Your task to perform on an android device: Open Yahoo.com Image 0: 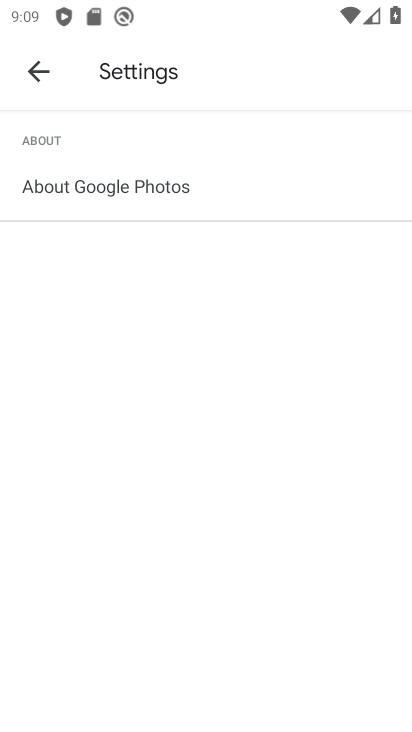
Step 0: press home button
Your task to perform on an android device: Open Yahoo.com Image 1: 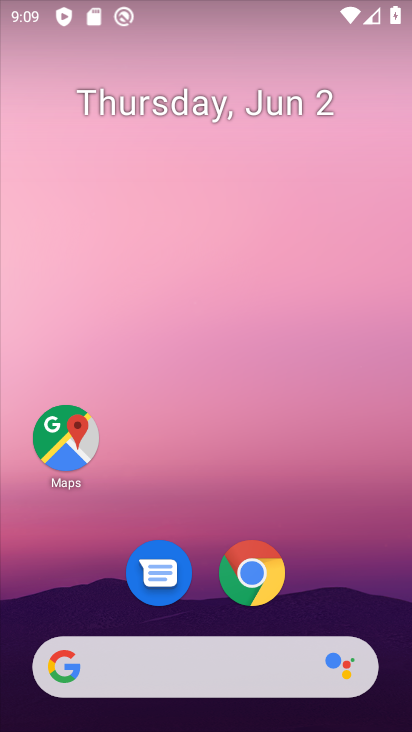
Step 1: click (252, 578)
Your task to perform on an android device: Open Yahoo.com Image 2: 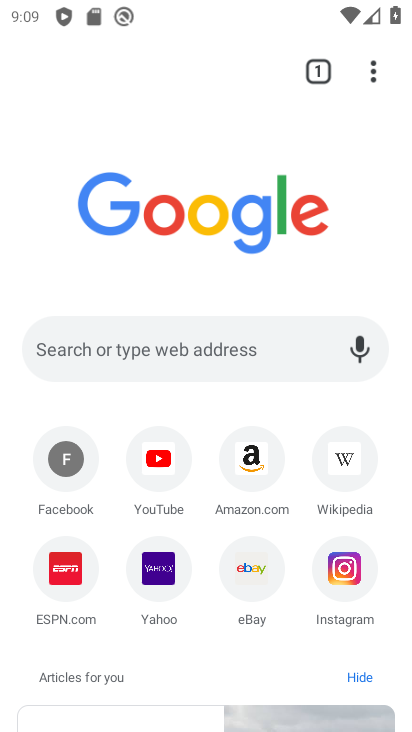
Step 2: click (167, 571)
Your task to perform on an android device: Open Yahoo.com Image 3: 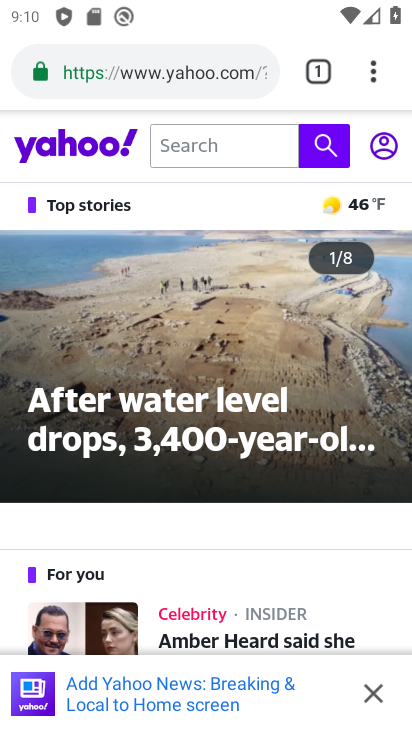
Step 3: task complete